Your task to perform on an android device: toggle improve location accuracy Image 0: 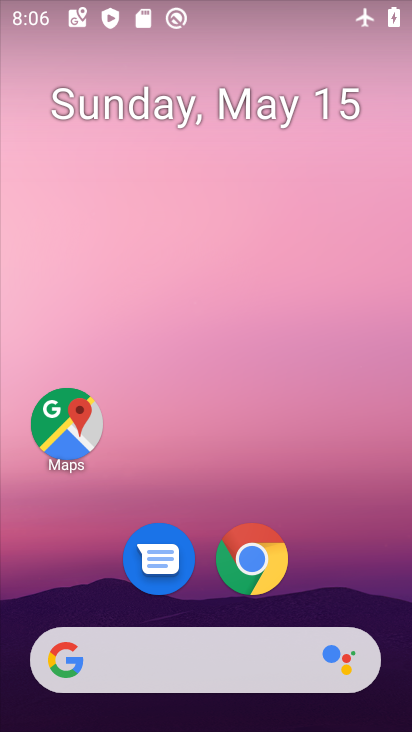
Step 0: drag from (351, 582) to (295, 119)
Your task to perform on an android device: toggle improve location accuracy Image 1: 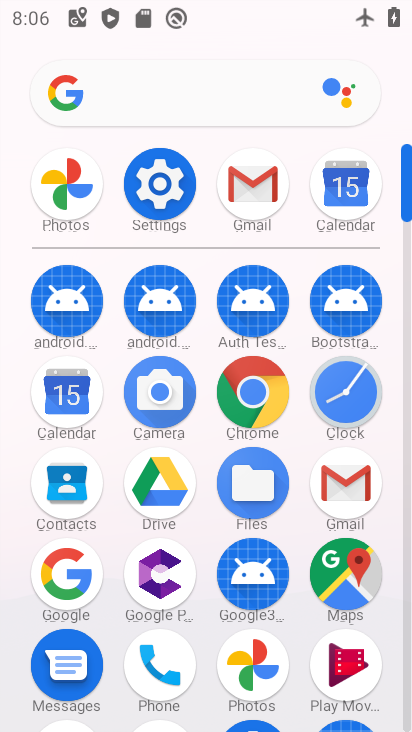
Step 1: click (186, 187)
Your task to perform on an android device: toggle improve location accuracy Image 2: 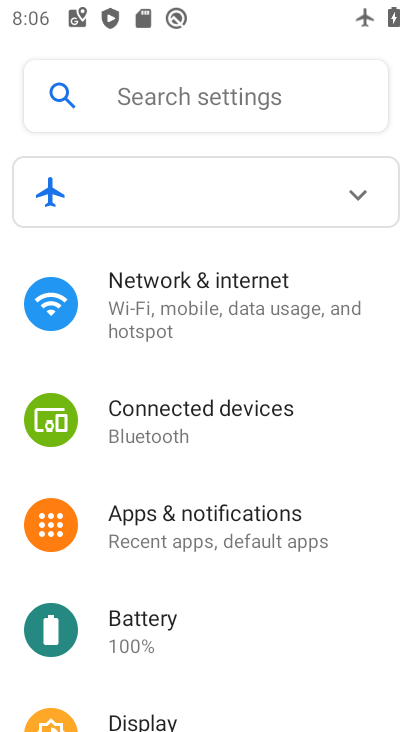
Step 2: drag from (138, 537) to (159, 417)
Your task to perform on an android device: toggle improve location accuracy Image 3: 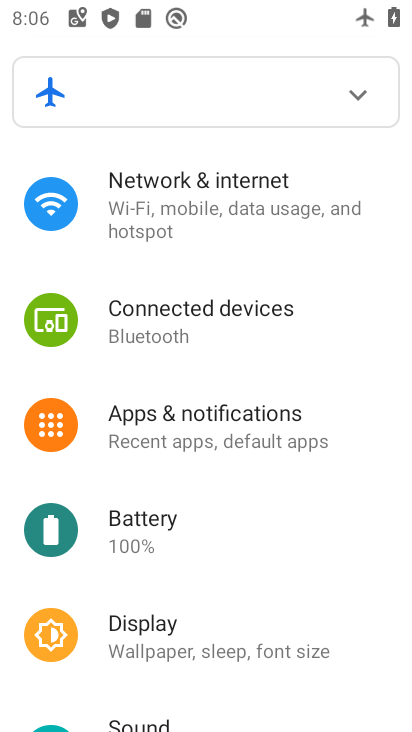
Step 3: click (159, 417)
Your task to perform on an android device: toggle improve location accuracy Image 4: 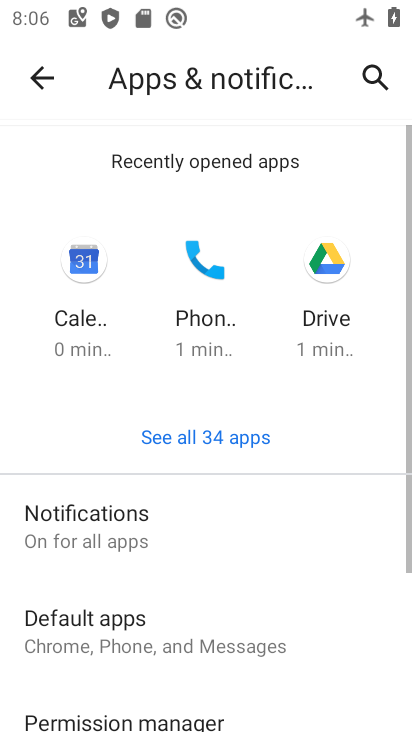
Step 4: click (36, 90)
Your task to perform on an android device: toggle improve location accuracy Image 5: 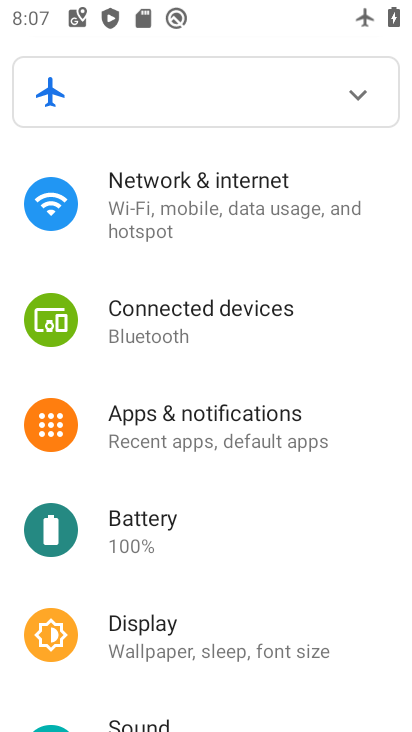
Step 5: drag from (137, 615) to (168, 309)
Your task to perform on an android device: toggle improve location accuracy Image 6: 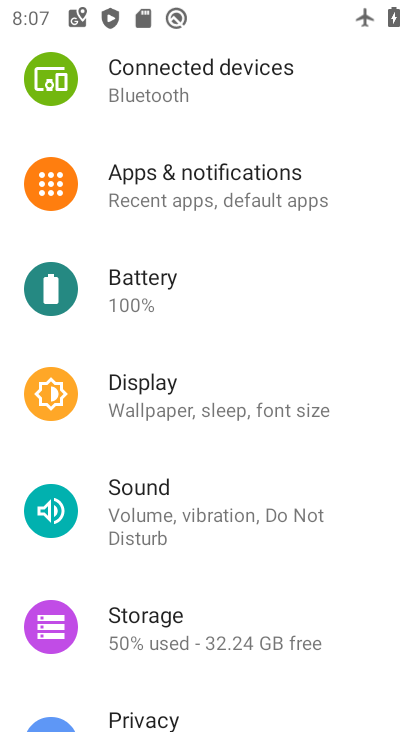
Step 6: drag from (187, 640) to (208, 382)
Your task to perform on an android device: toggle improve location accuracy Image 7: 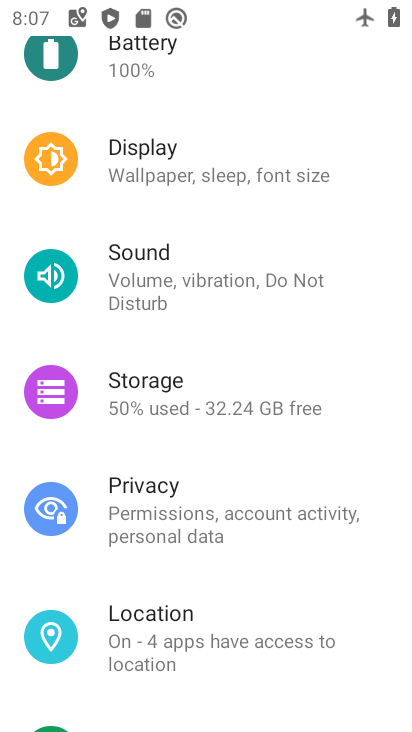
Step 7: click (198, 607)
Your task to perform on an android device: toggle improve location accuracy Image 8: 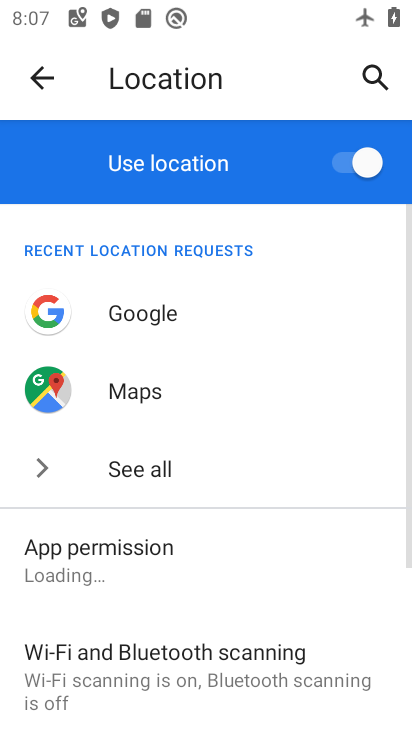
Step 8: drag from (199, 638) to (226, 404)
Your task to perform on an android device: toggle improve location accuracy Image 9: 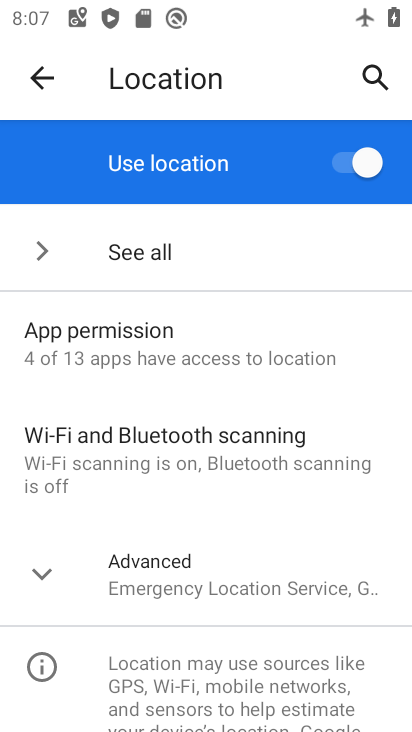
Step 9: click (189, 543)
Your task to perform on an android device: toggle improve location accuracy Image 10: 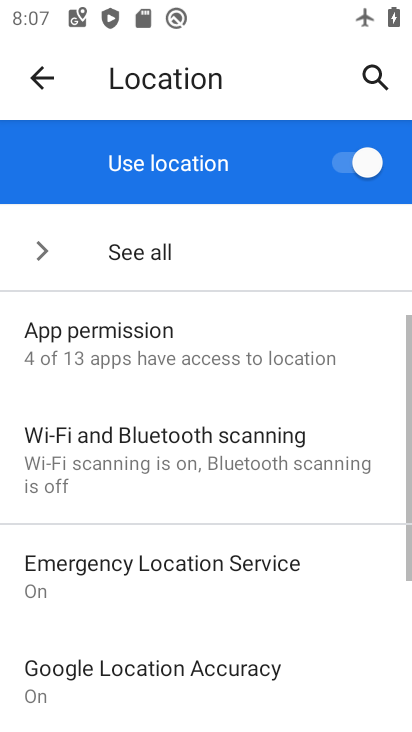
Step 10: drag from (189, 543) to (207, 403)
Your task to perform on an android device: toggle improve location accuracy Image 11: 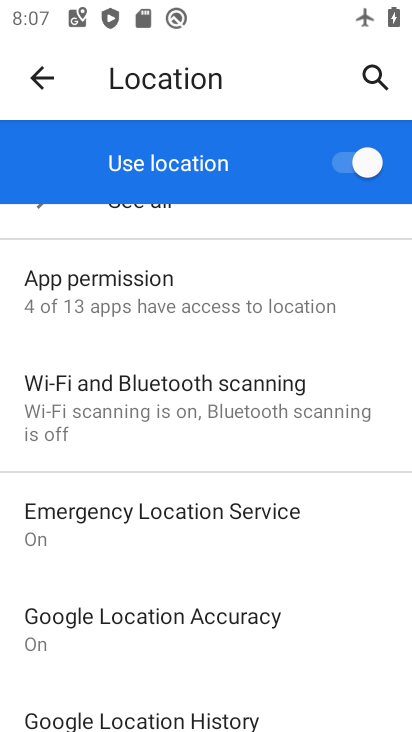
Step 11: click (183, 605)
Your task to perform on an android device: toggle improve location accuracy Image 12: 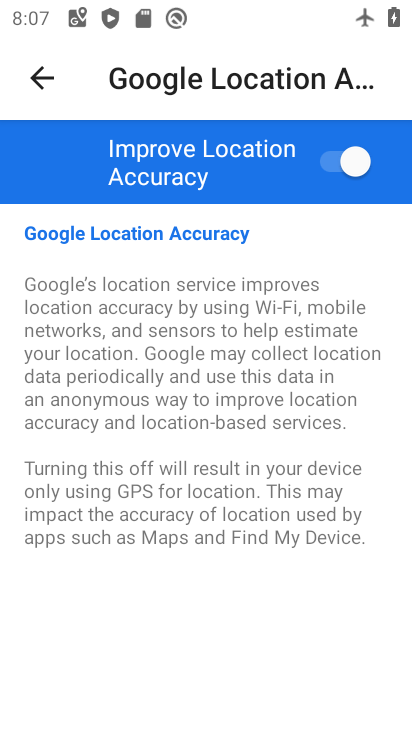
Step 12: click (332, 175)
Your task to perform on an android device: toggle improve location accuracy Image 13: 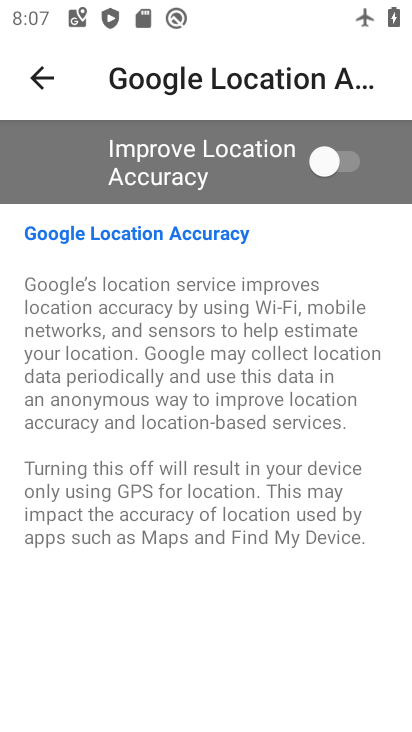
Step 13: task complete